Your task to perform on an android device: change your default location settings in chrome Image 0: 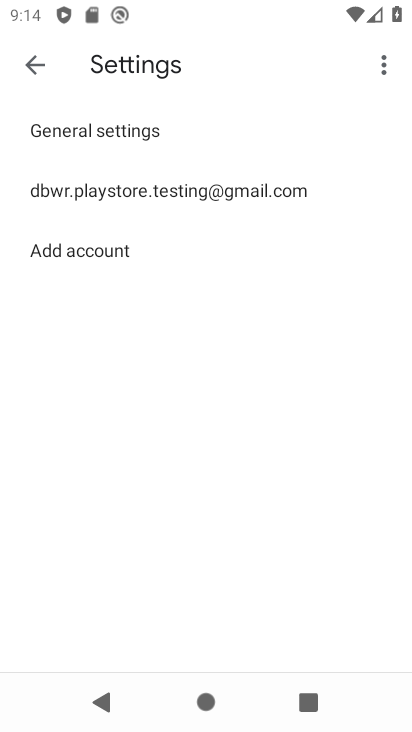
Step 0: press home button
Your task to perform on an android device: change your default location settings in chrome Image 1: 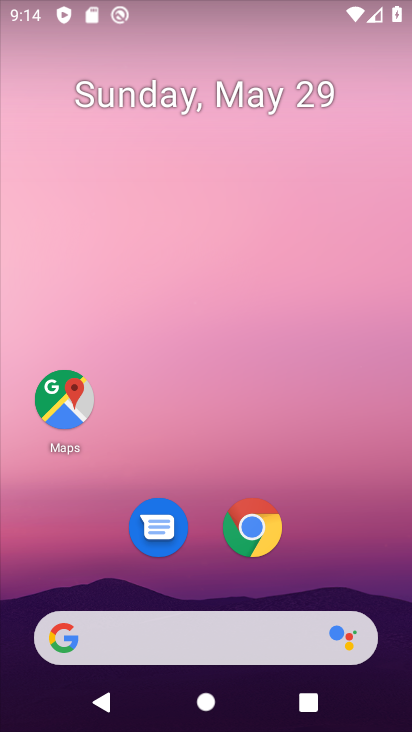
Step 1: click (255, 529)
Your task to perform on an android device: change your default location settings in chrome Image 2: 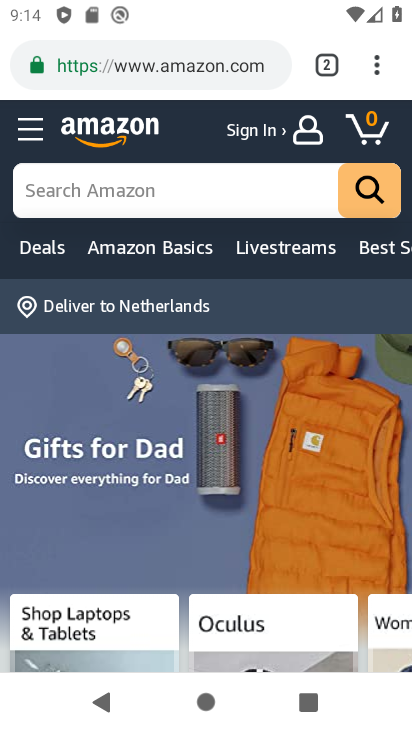
Step 2: drag from (377, 74) to (211, 583)
Your task to perform on an android device: change your default location settings in chrome Image 3: 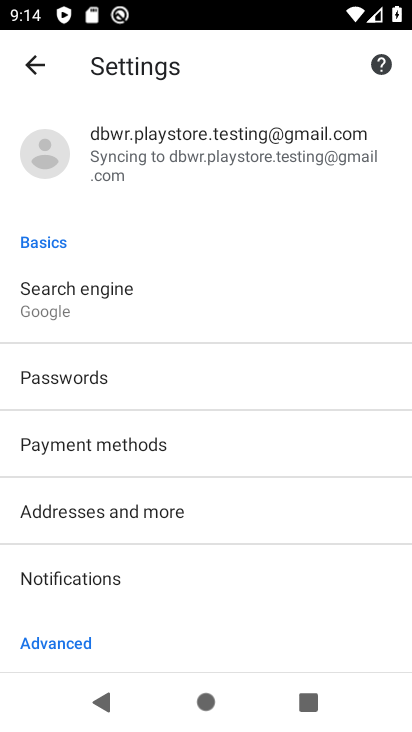
Step 3: drag from (211, 584) to (350, 202)
Your task to perform on an android device: change your default location settings in chrome Image 4: 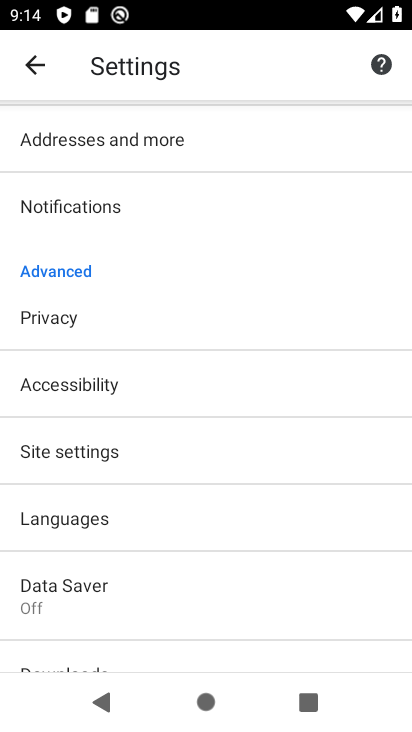
Step 4: click (116, 462)
Your task to perform on an android device: change your default location settings in chrome Image 5: 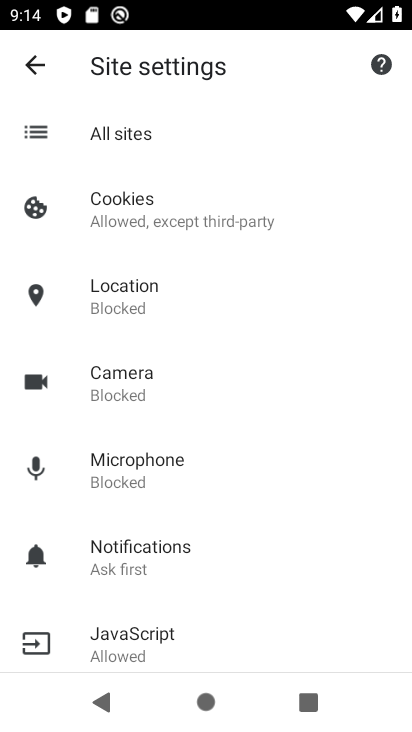
Step 5: click (130, 294)
Your task to perform on an android device: change your default location settings in chrome Image 6: 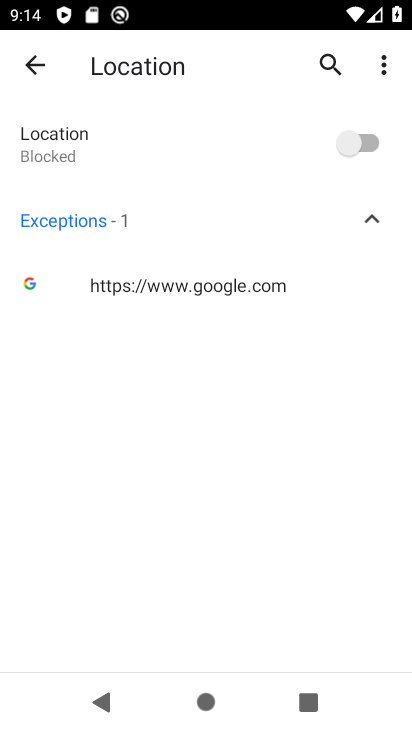
Step 6: click (368, 142)
Your task to perform on an android device: change your default location settings in chrome Image 7: 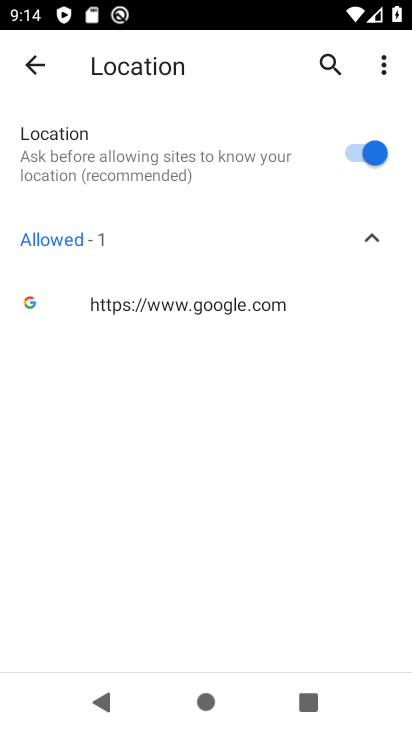
Step 7: task complete